Your task to perform on an android device: turn off data saver in the chrome app Image 0: 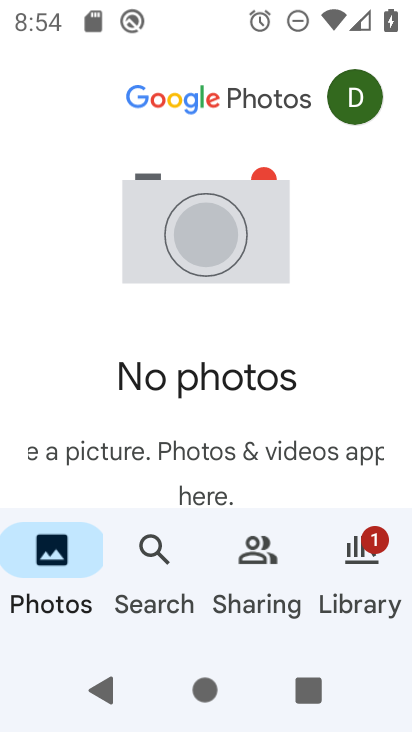
Step 0: press home button
Your task to perform on an android device: turn off data saver in the chrome app Image 1: 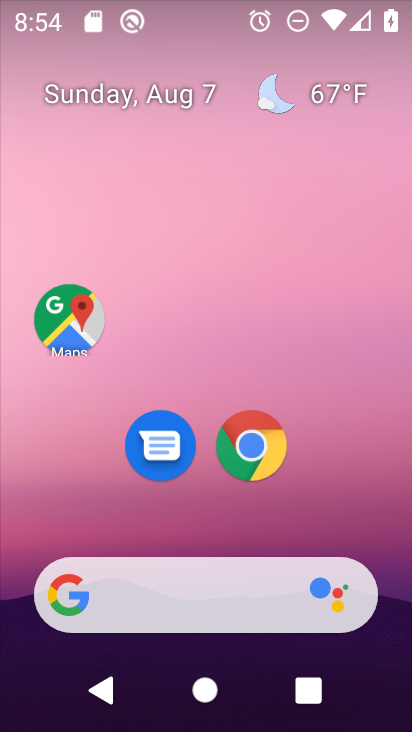
Step 1: click (254, 439)
Your task to perform on an android device: turn off data saver in the chrome app Image 2: 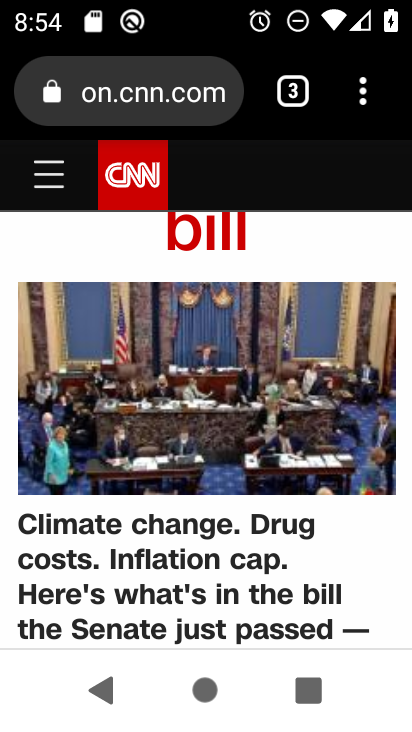
Step 2: click (368, 96)
Your task to perform on an android device: turn off data saver in the chrome app Image 3: 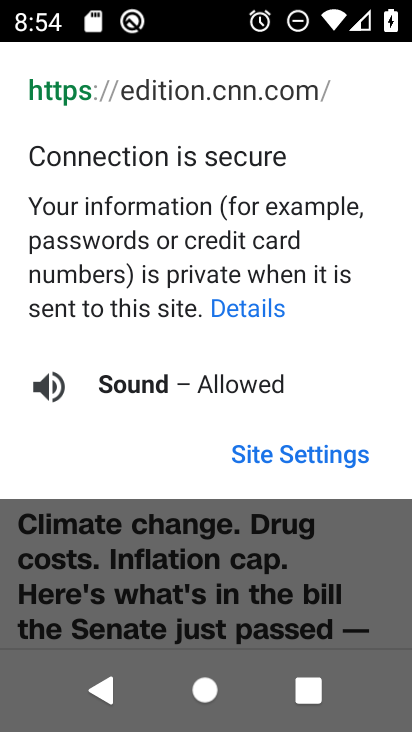
Step 3: click (107, 581)
Your task to perform on an android device: turn off data saver in the chrome app Image 4: 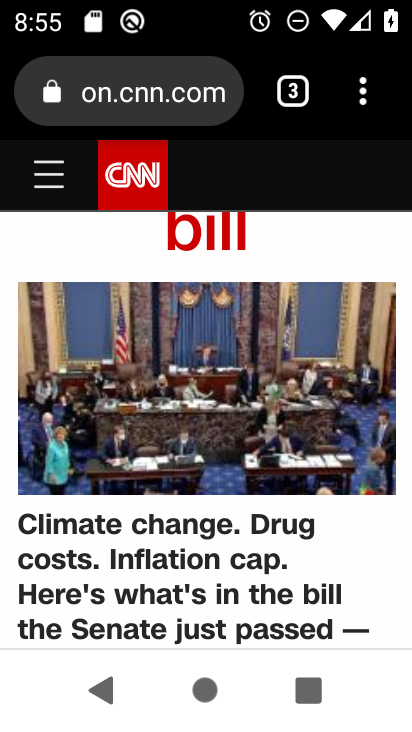
Step 4: click (366, 86)
Your task to perform on an android device: turn off data saver in the chrome app Image 5: 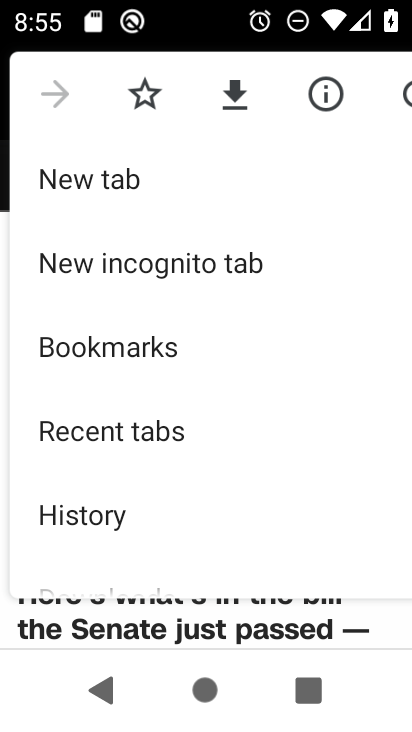
Step 5: drag from (143, 453) to (63, 15)
Your task to perform on an android device: turn off data saver in the chrome app Image 6: 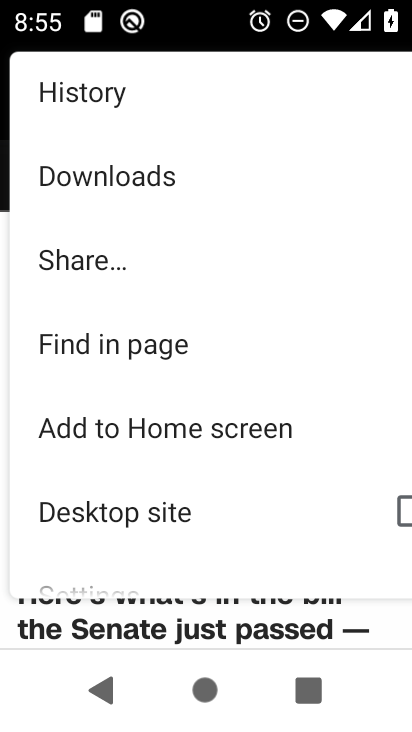
Step 6: drag from (158, 546) to (106, 93)
Your task to perform on an android device: turn off data saver in the chrome app Image 7: 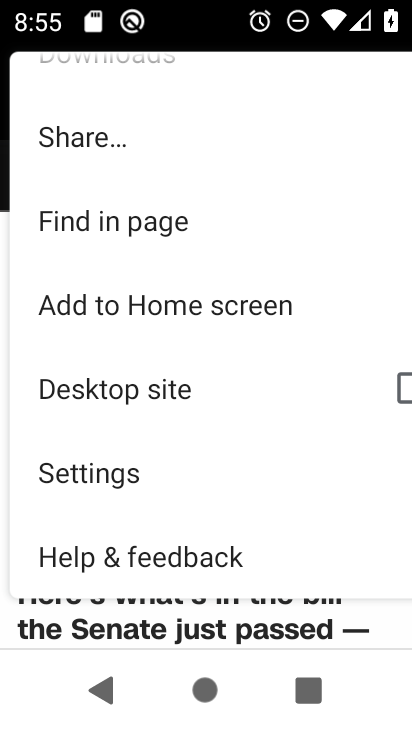
Step 7: click (175, 463)
Your task to perform on an android device: turn off data saver in the chrome app Image 8: 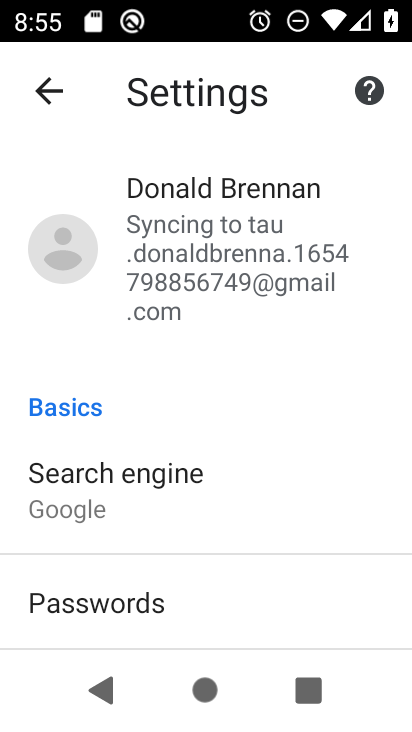
Step 8: drag from (131, 561) to (180, 33)
Your task to perform on an android device: turn off data saver in the chrome app Image 9: 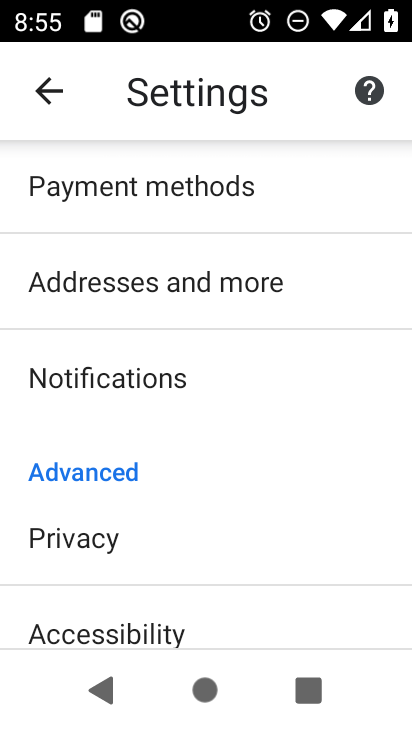
Step 9: drag from (144, 624) to (296, 53)
Your task to perform on an android device: turn off data saver in the chrome app Image 10: 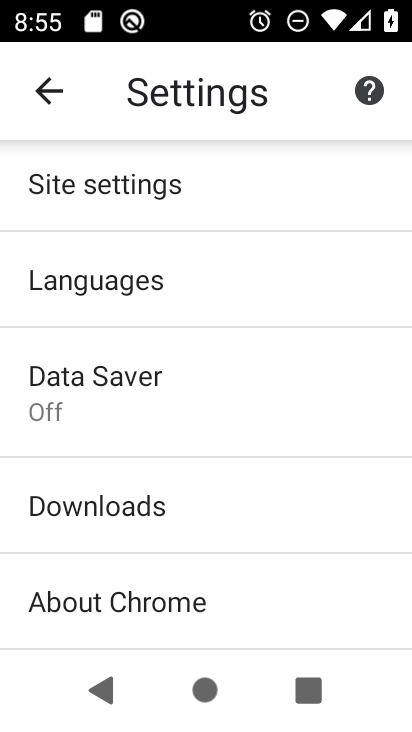
Step 10: click (126, 380)
Your task to perform on an android device: turn off data saver in the chrome app Image 11: 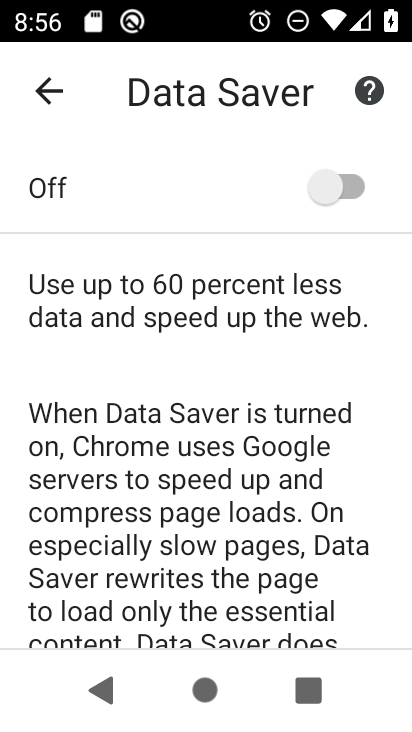
Step 11: task complete